Your task to perform on an android device: Open Google Maps Image 0: 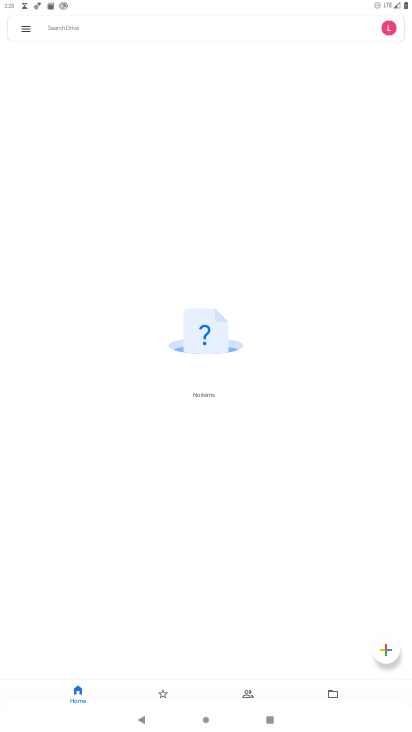
Step 0: press home button
Your task to perform on an android device: Open Google Maps Image 1: 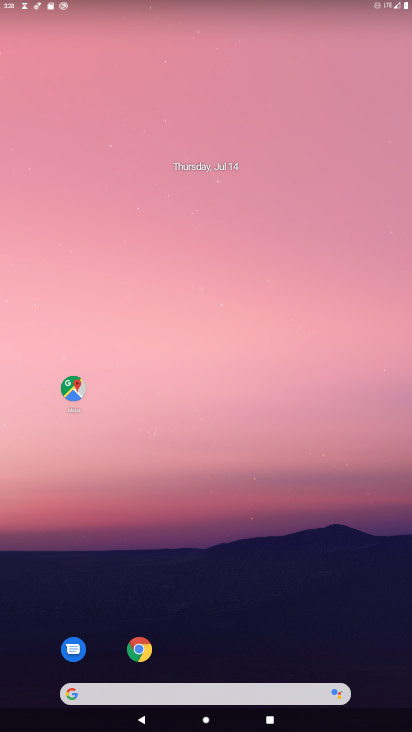
Step 1: drag from (312, 696) to (280, 57)
Your task to perform on an android device: Open Google Maps Image 2: 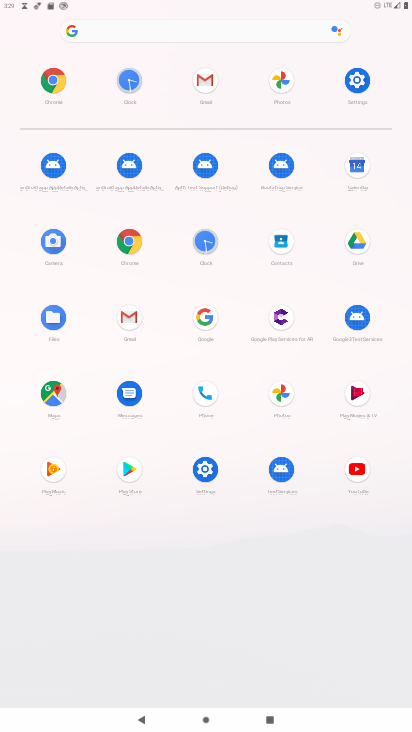
Step 2: click (49, 396)
Your task to perform on an android device: Open Google Maps Image 3: 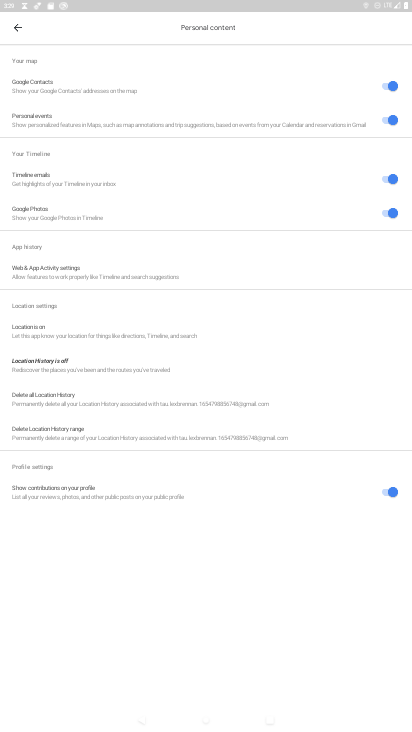
Step 3: task complete